Your task to perform on an android device: Open settings on Google Maps Image 0: 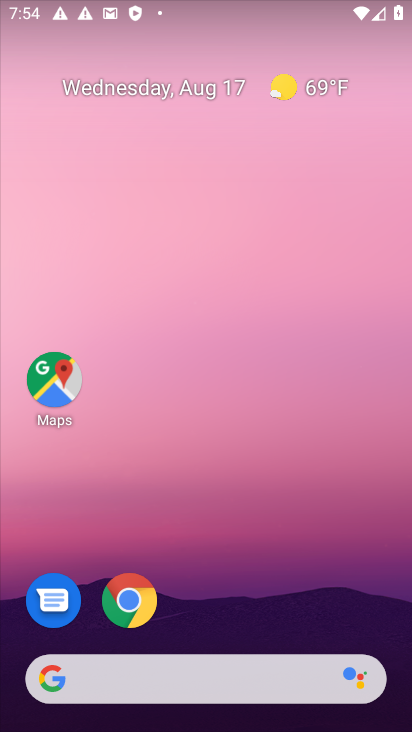
Step 0: drag from (244, 604) to (200, 147)
Your task to perform on an android device: Open settings on Google Maps Image 1: 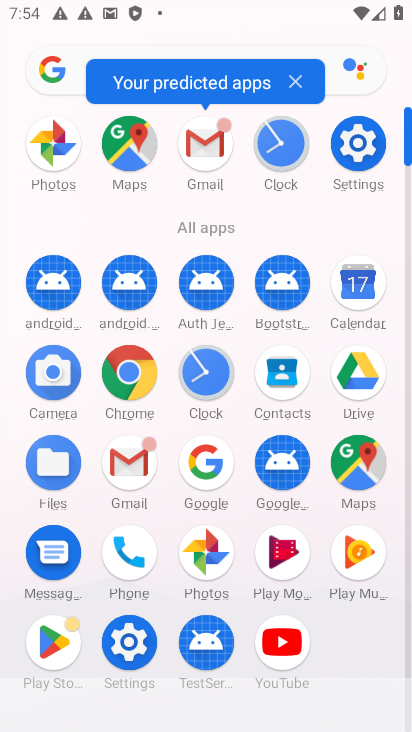
Step 1: click (131, 151)
Your task to perform on an android device: Open settings on Google Maps Image 2: 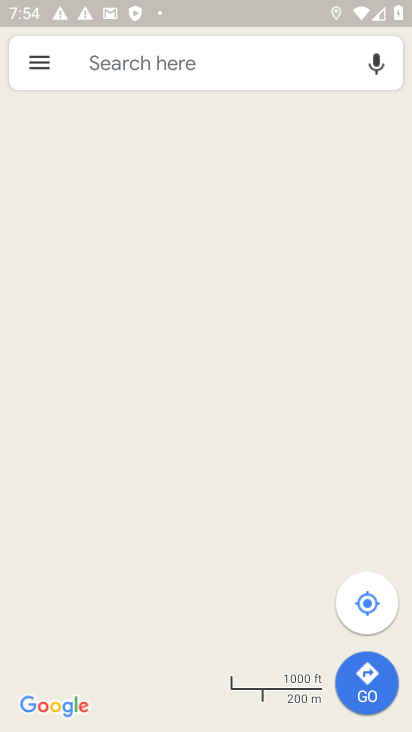
Step 2: click (36, 65)
Your task to perform on an android device: Open settings on Google Maps Image 3: 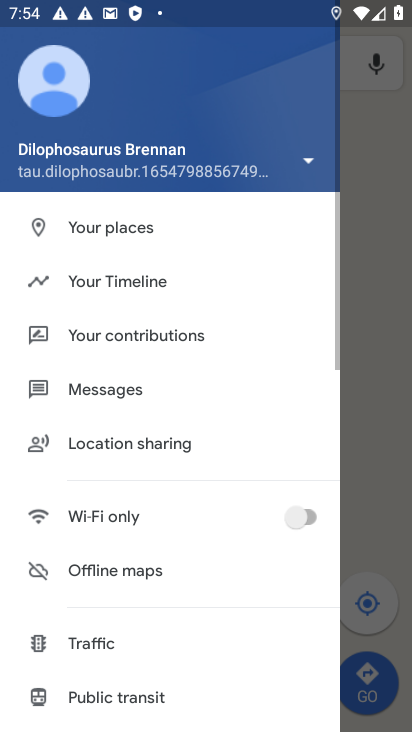
Step 3: drag from (184, 625) to (175, 216)
Your task to perform on an android device: Open settings on Google Maps Image 4: 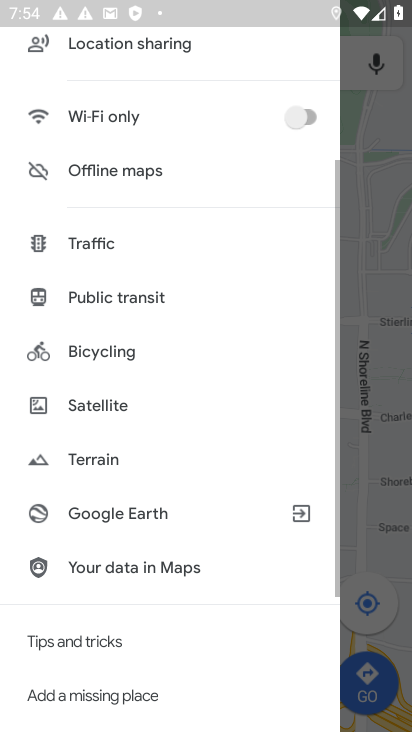
Step 4: drag from (184, 664) to (176, 362)
Your task to perform on an android device: Open settings on Google Maps Image 5: 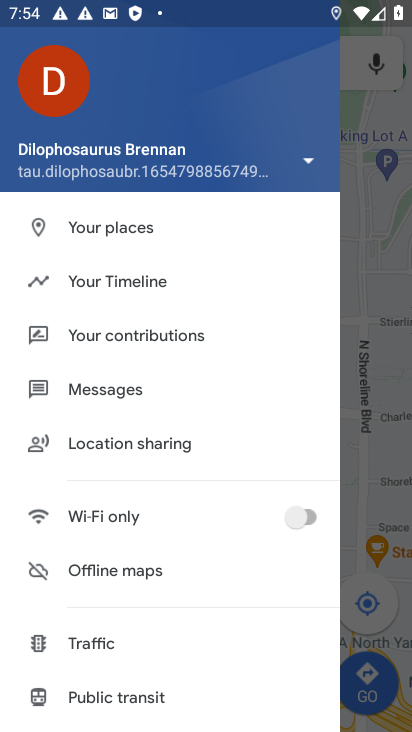
Step 5: drag from (201, 637) to (192, 157)
Your task to perform on an android device: Open settings on Google Maps Image 6: 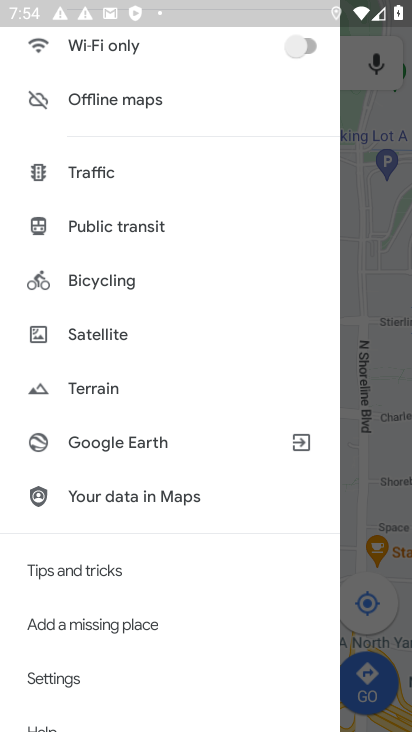
Step 6: click (66, 680)
Your task to perform on an android device: Open settings on Google Maps Image 7: 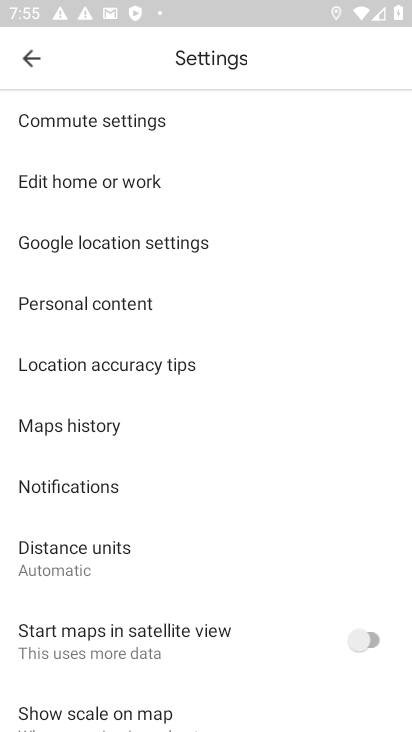
Step 7: task complete